Your task to perform on an android device: toggle data saver in the chrome app Image 0: 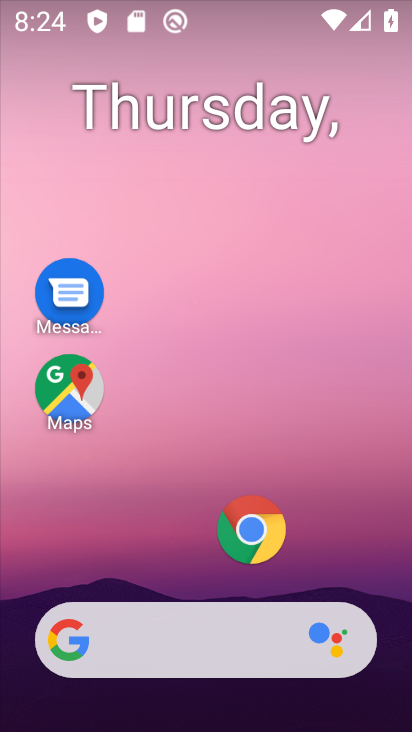
Step 0: click (251, 513)
Your task to perform on an android device: toggle data saver in the chrome app Image 1: 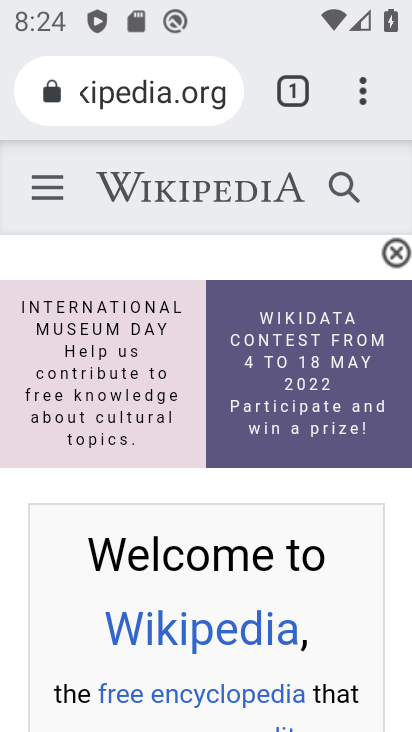
Step 1: click (376, 88)
Your task to perform on an android device: toggle data saver in the chrome app Image 2: 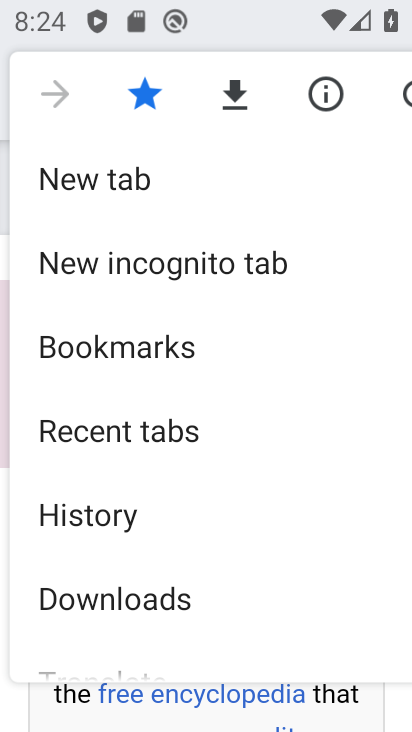
Step 2: drag from (177, 547) to (230, 157)
Your task to perform on an android device: toggle data saver in the chrome app Image 3: 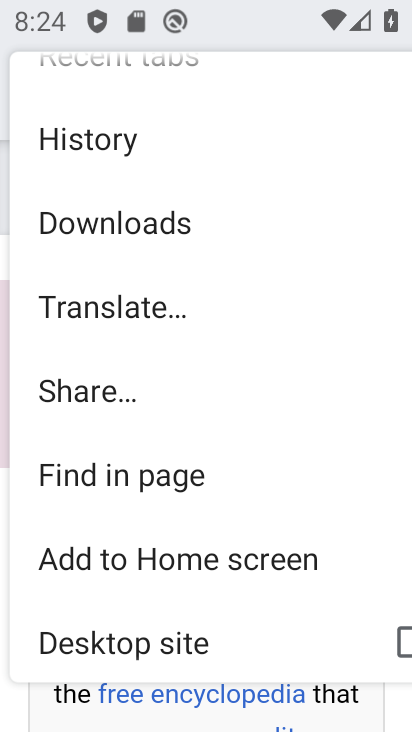
Step 3: drag from (221, 572) to (380, 108)
Your task to perform on an android device: toggle data saver in the chrome app Image 4: 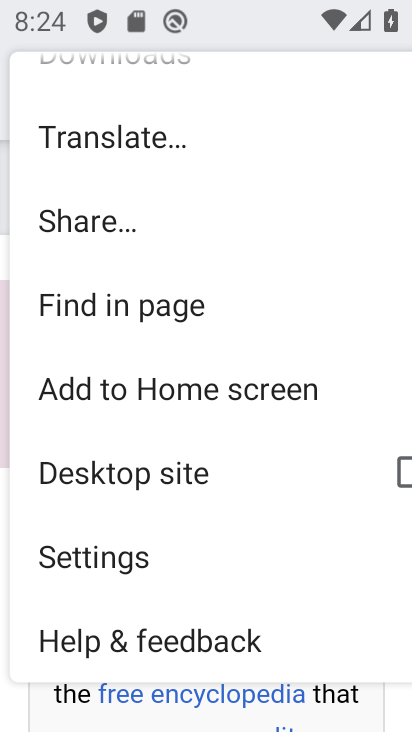
Step 4: click (110, 591)
Your task to perform on an android device: toggle data saver in the chrome app Image 5: 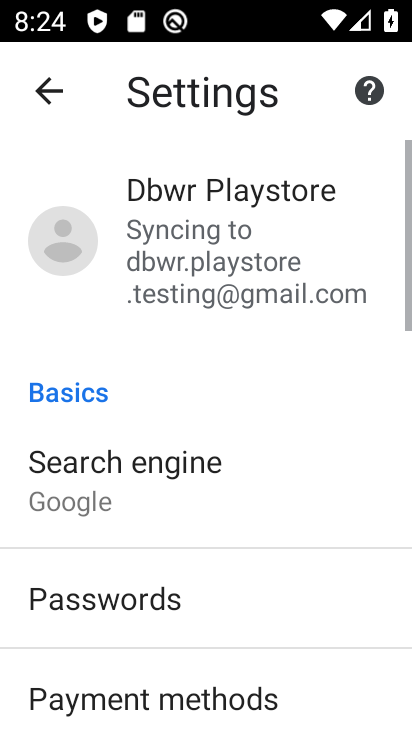
Step 5: drag from (110, 591) to (233, 138)
Your task to perform on an android device: toggle data saver in the chrome app Image 6: 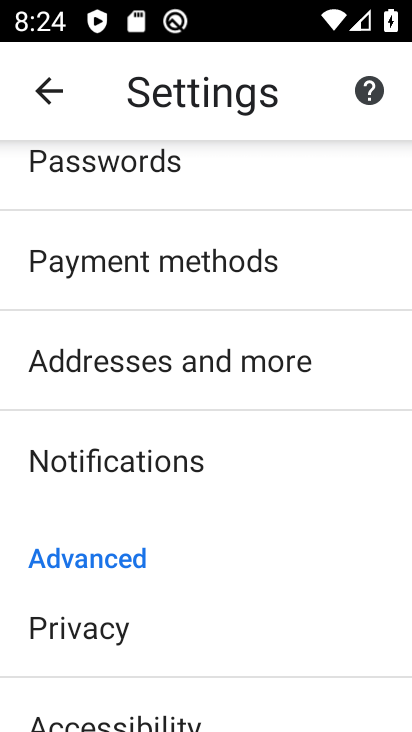
Step 6: drag from (166, 602) to (210, 357)
Your task to perform on an android device: toggle data saver in the chrome app Image 7: 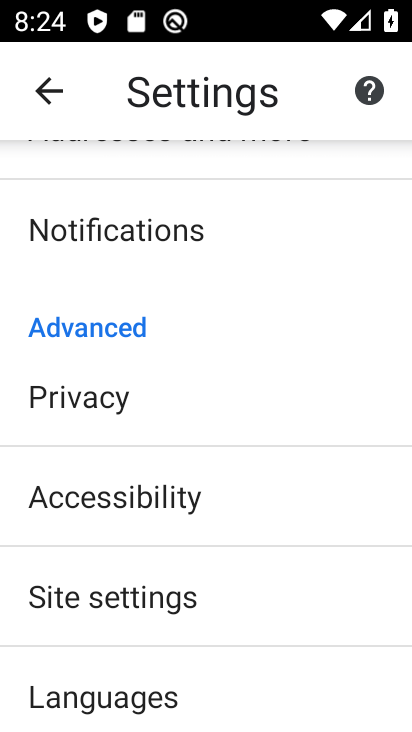
Step 7: click (185, 608)
Your task to perform on an android device: toggle data saver in the chrome app Image 8: 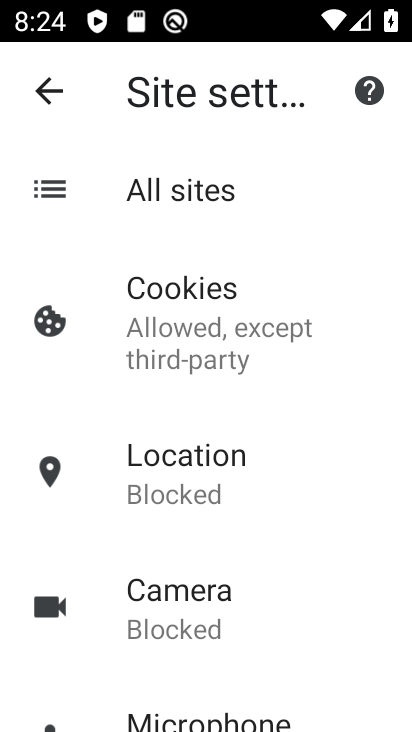
Step 8: click (40, 105)
Your task to perform on an android device: toggle data saver in the chrome app Image 9: 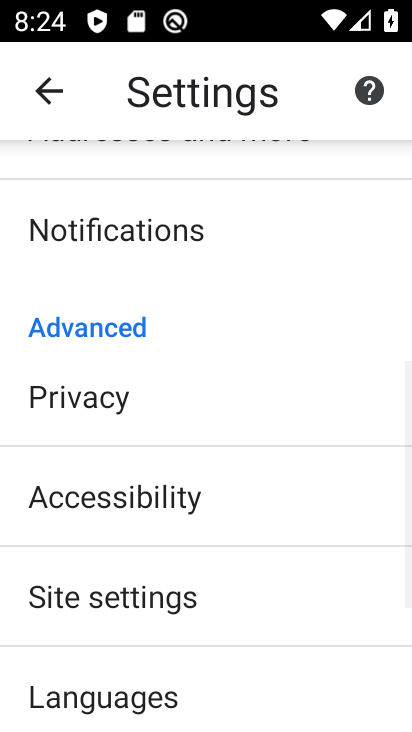
Step 9: drag from (78, 631) to (236, 140)
Your task to perform on an android device: toggle data saver in the chrome app Image 10: 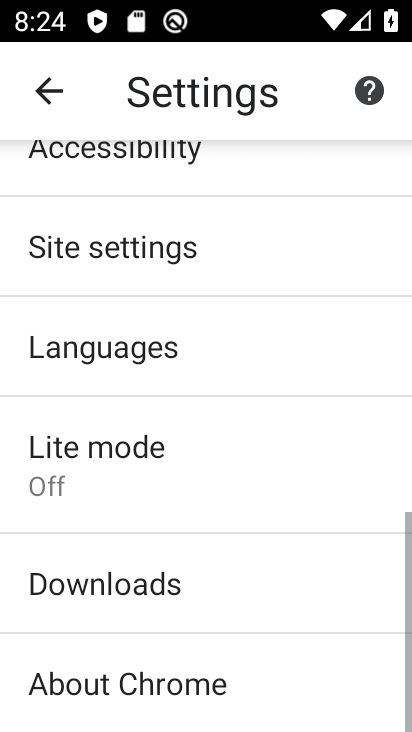
Step 10: click (187, 472)
Your task to perform on an android device: toggle data saver in the chrome app Image 11: 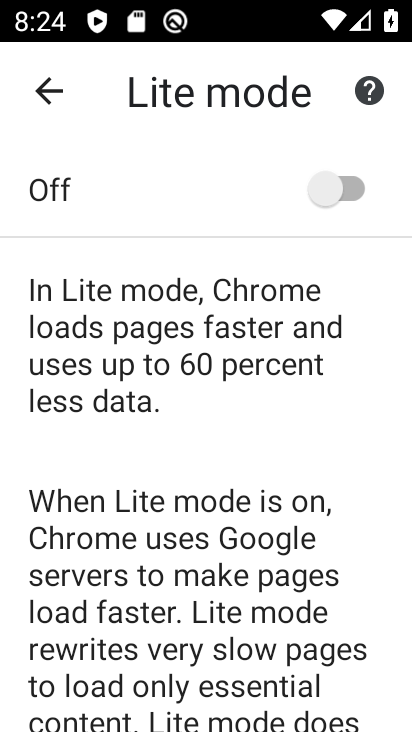
Step 11: click (360, 190)
Your task to perform on an android device: toggle data saver in the chrome app Image 12: 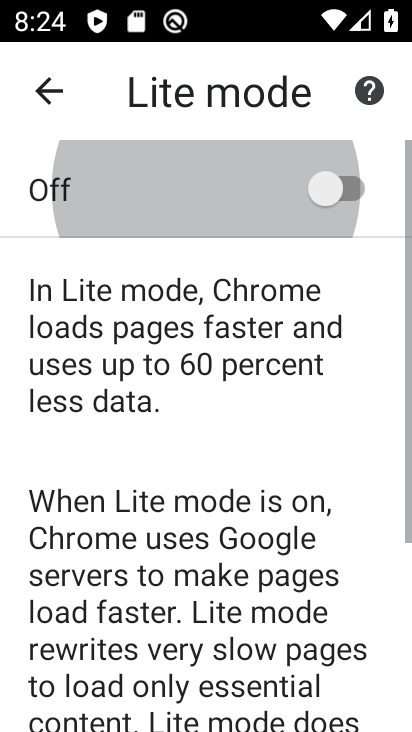
Step 12: click (360, 190)
Your task to perform on an android device: toggle data saver in the chrome app Image 13: 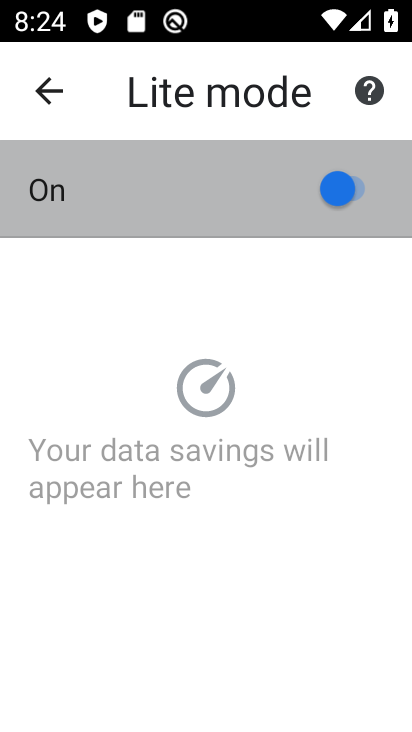
Step 13: click (360, 190)
Your task to perform on an android device: toggle data saver in the chrome app Image 14: 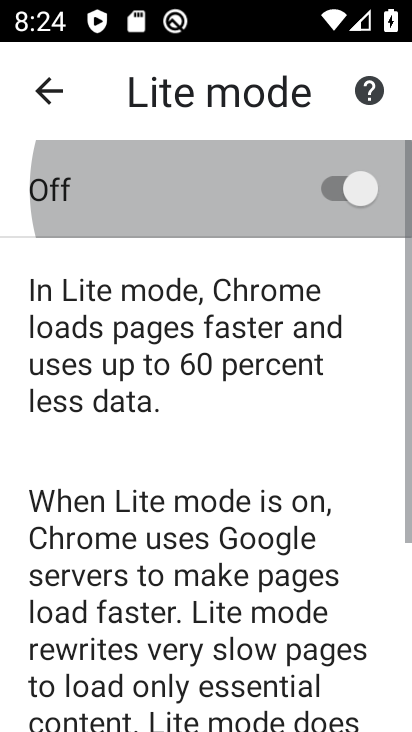
Step 14: click (360, 190)
Your task to perform on an android device: toggle data saver in the chrome app Image 15: 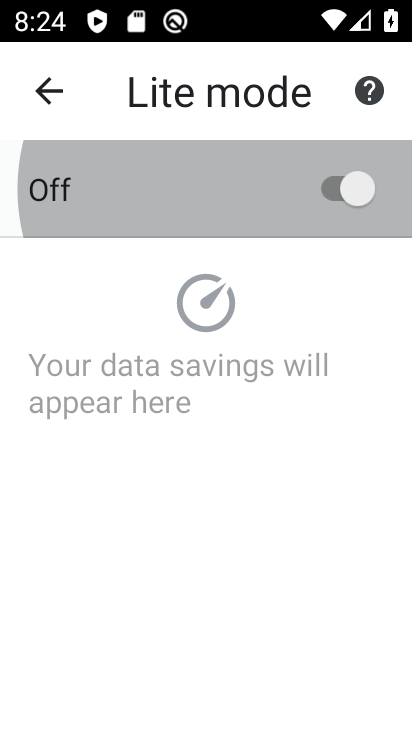
Step 15: click (360, 190)
Your task to perform on an android device: toggle data saver in the chrome app Image 16: 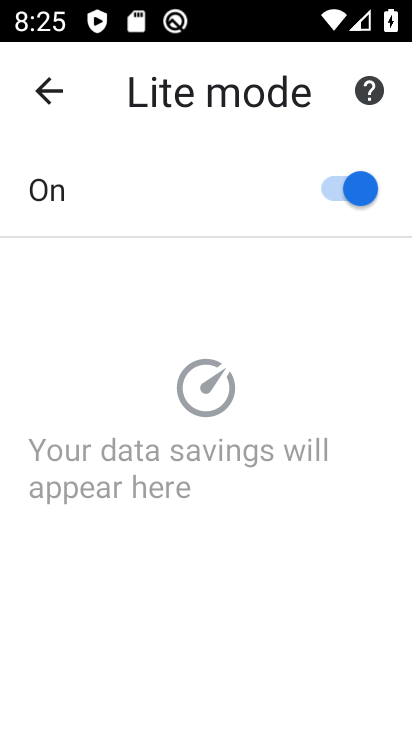
Step 16: task complete